Your task to perform on an android device: Go to display settings Image 0: 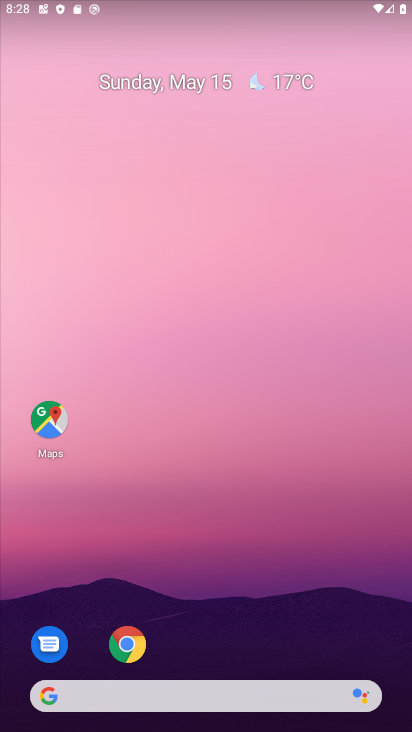
Step 0: drag from (221, 717) to (88, 176)
Your task to perform on an android device: Go to display settings Image 1: 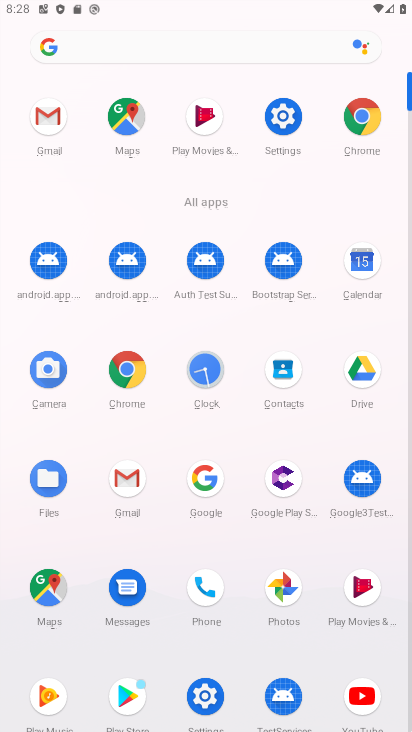
Step 1: click (278, 135)
Your task to perform on an android device: Go to display settings Image 2: 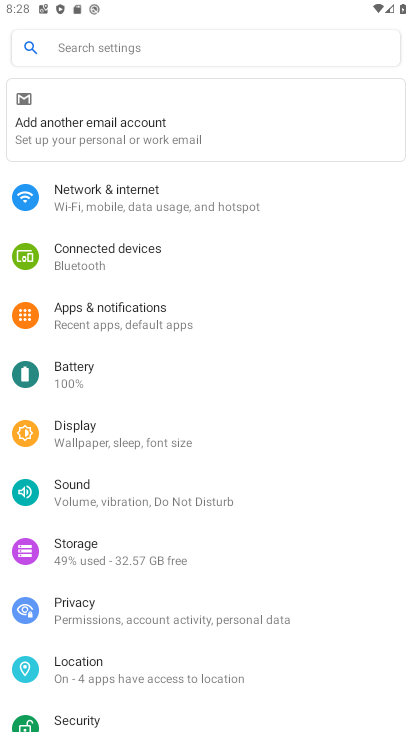
Step 2: click (99, 430)
Your task to perform on an android device: Go to display settings Image 3: 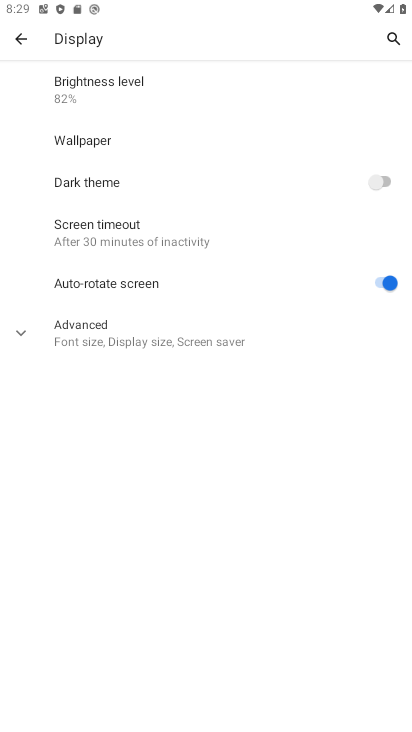
Step 3: task complete